Your task to perform on an android device: Go to location settings Image 0: 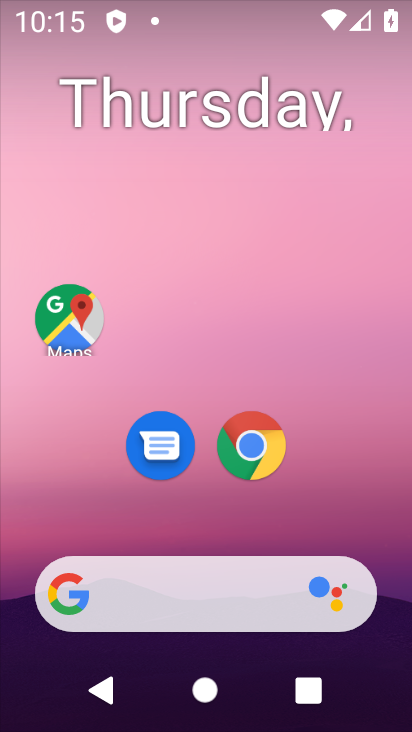
Step 0: drag from (240, 713) to (247, 41)
Your task to perform on an android device: Go to location settings Image 1: 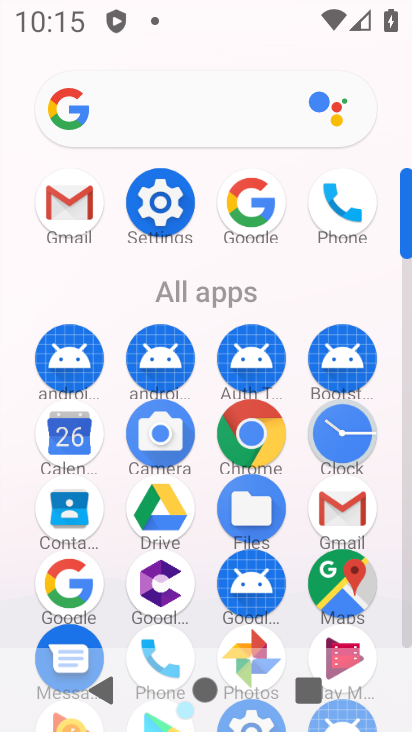
Step 1: click (158, 200)
Your task to perform on an android device: Go to location settings Image 2: 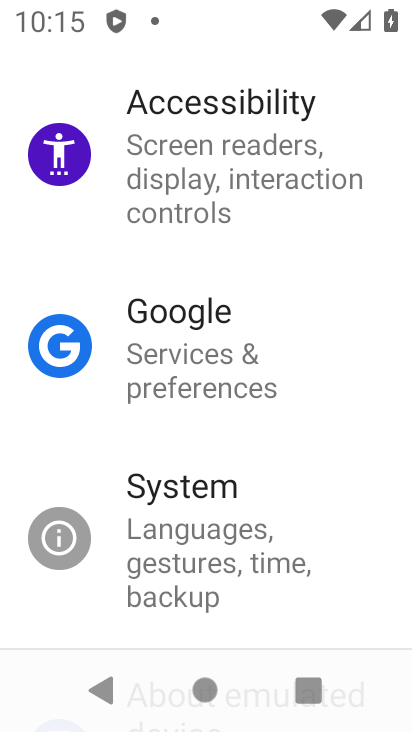
Step 2: drag from (339, 94) to (327, 523)
Your task to perform on an android device: Go to location settings Image 3: 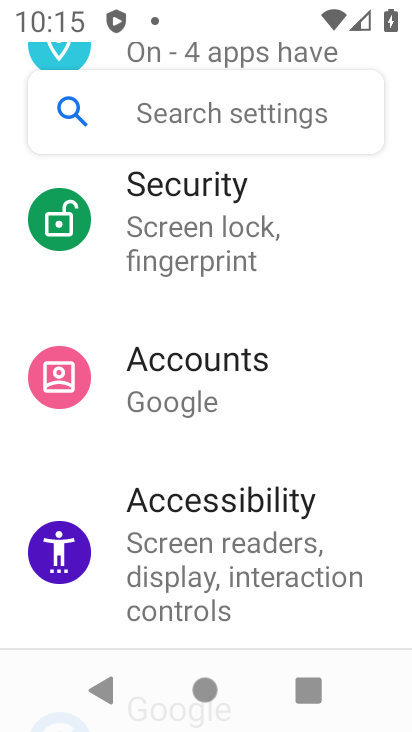
Step 3: drag from (298, 181) to (308, 568)
Your task to perform on an android device: Go to location settings Image 4: 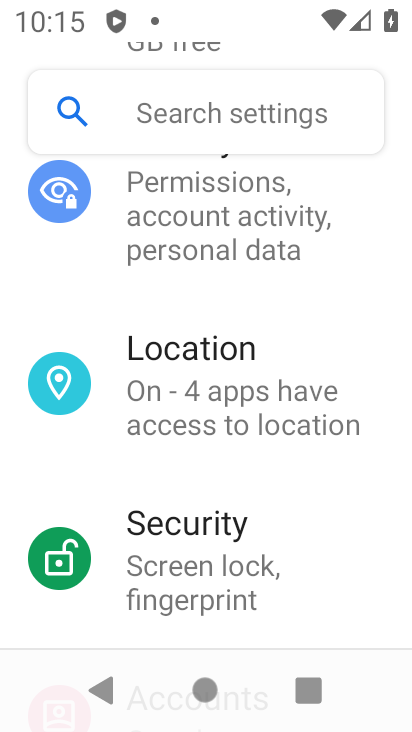
Step 4: click (215, 383)
Your task to perform on an android device: Go to location settings Image 5: 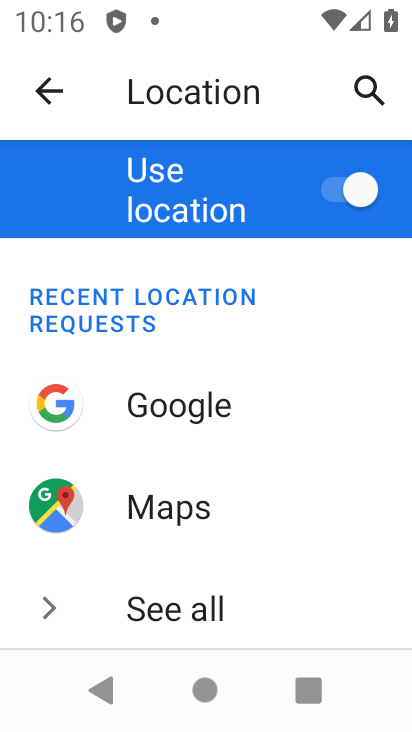
Step 5: task complete